Your task to perform on an android device: Go to CNN.com Image 0: 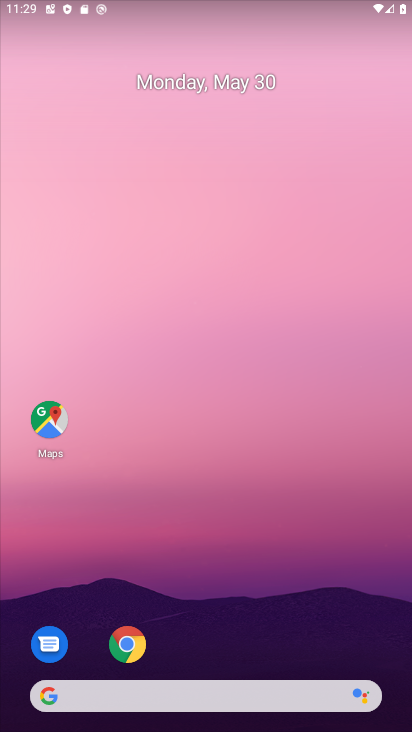
Step 0: click (128, 635)
Your task to perform on an android device: Go to CNN.com Image 1: 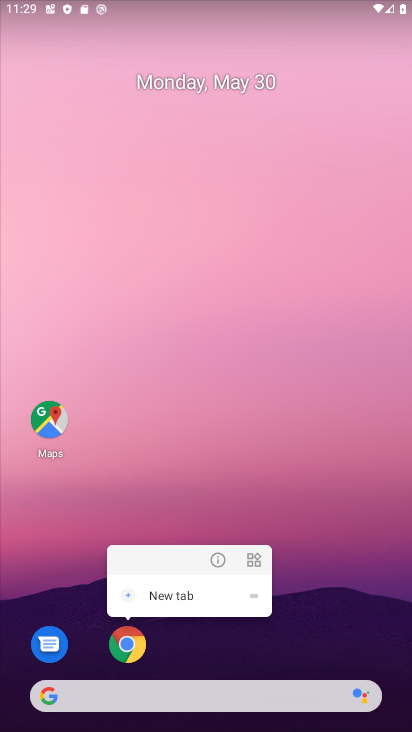
Step 1: click (136, 648)
Your task to perform on an android device: Go to CNN.com Image 2: 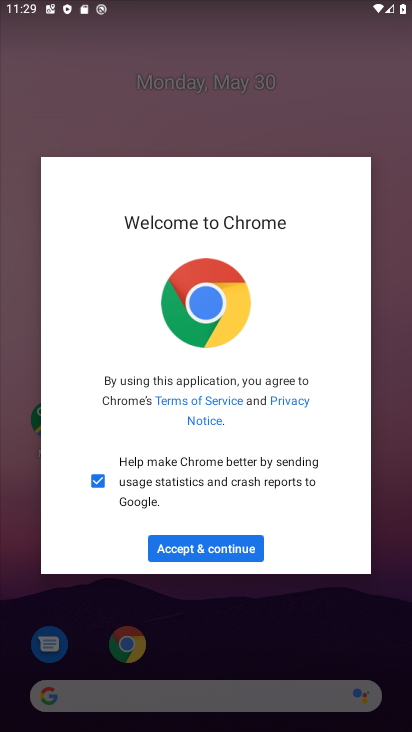
Step 2: click (230, 543)
Your task to perform on an android device: Go to CNN.com Image 3: 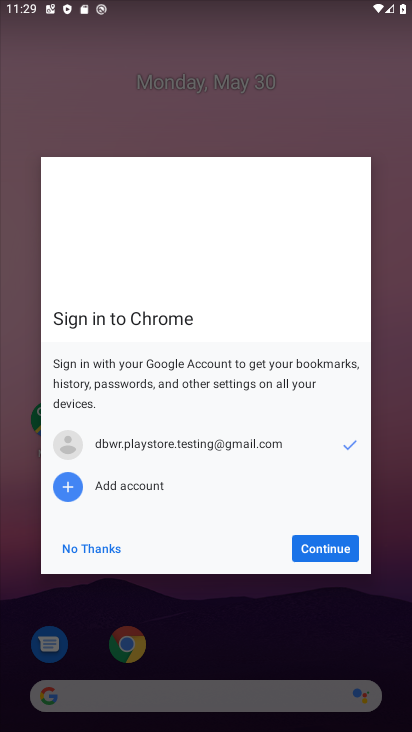
Step 3: click (319, 546)
Your task to perform on an android device: Go to CNN.com Image 4: 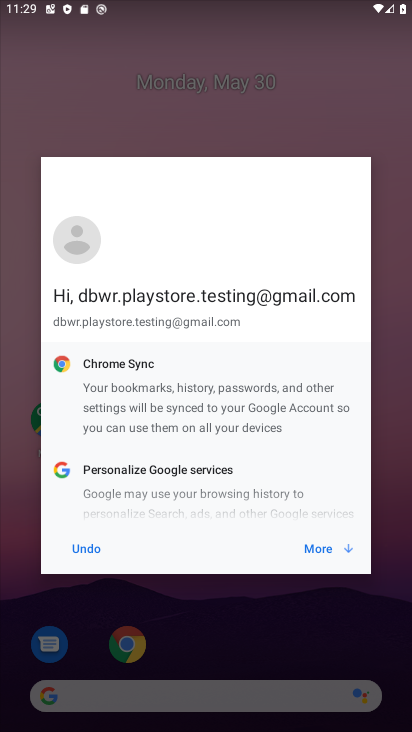
Step 4: click (319, 546)
Your task to perform on an android device: Go to CNN.com Image 5: 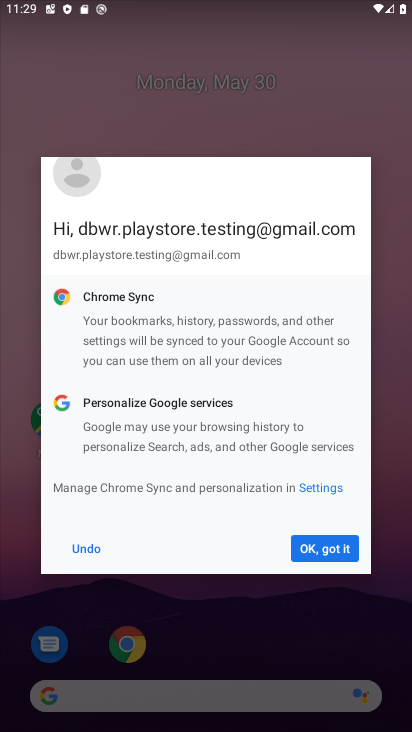
Step 5: click (320, 546)
Your task to perform on an android device: Go to CNN.com Image 6: 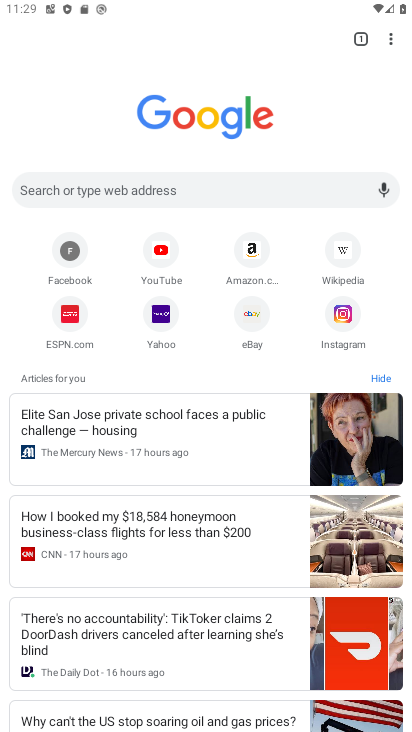
Step 6: click (176, 188)
Your task to perform on an android device: Go to CNN.com Image 7: 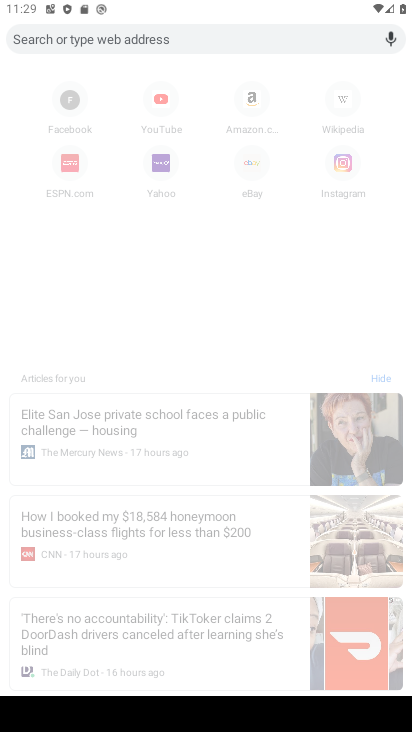
Step 7: type "CNN.com"
Your task to perform on an android device: Go to CNN.com Image 8: 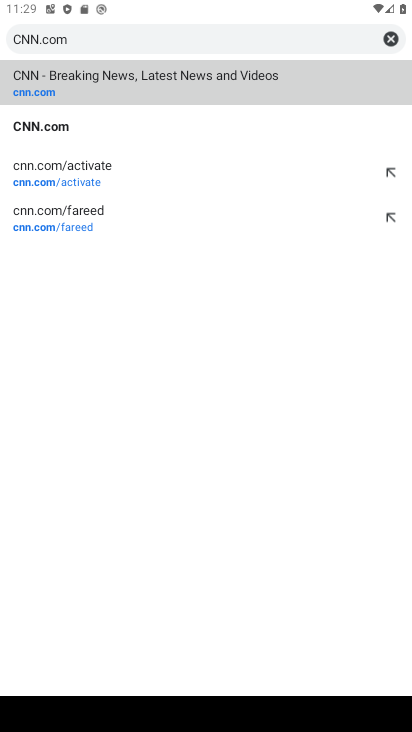
Step 8: click (115, 70)
Your task to perform on an android device: Go to CNN.com Image 9: 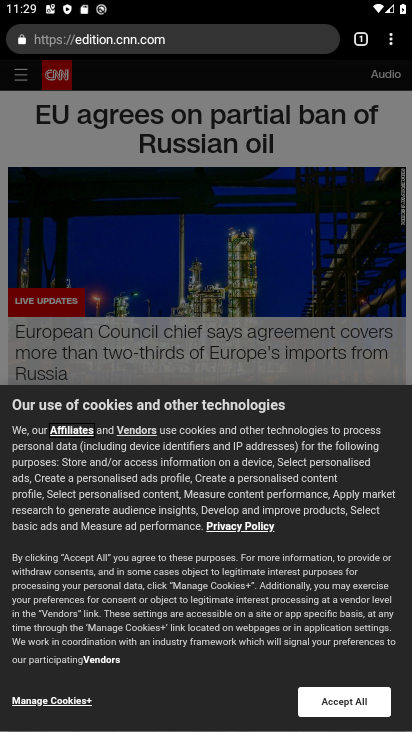
Step 9: task complete